Your task to perform on an android device: change your default location settings in chrome Image 0: 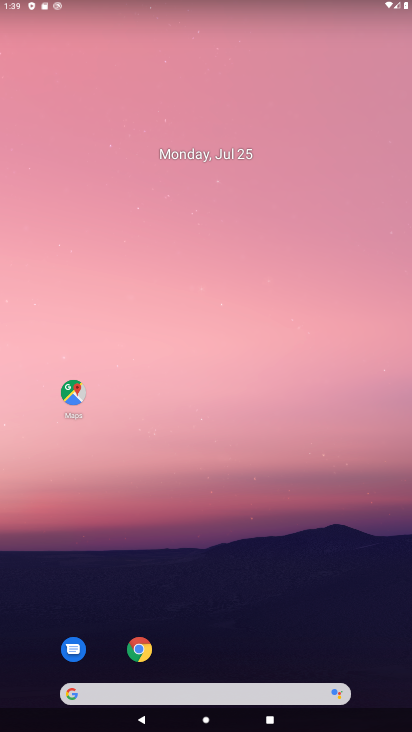
Step 0: click (146, 653)
Your task to perform on an android device: change your default location settings in chrome Image 1: 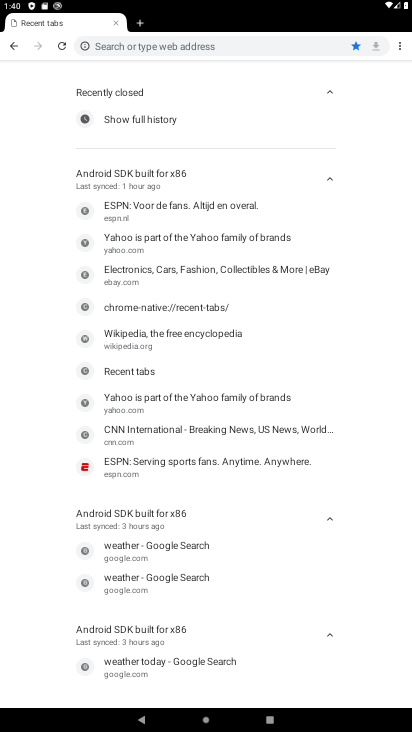
Step 1: click (400, 48)
Your task to perform on an android device: change your default location settings in chrome Image 2: 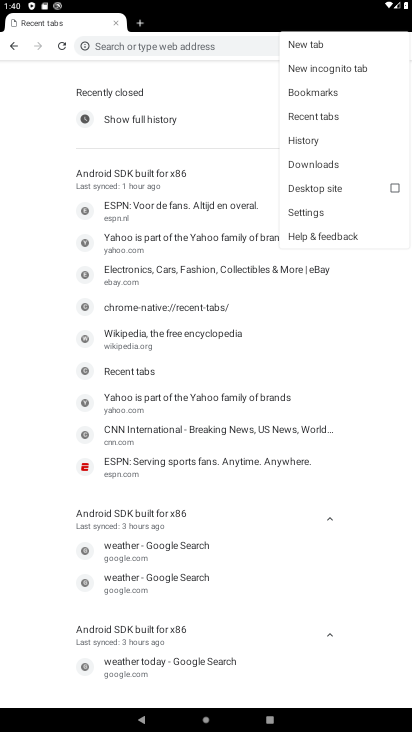
Step 2: click (330, 212)
Your task to perform on an android device: change your default location settings in chrome Image 3: 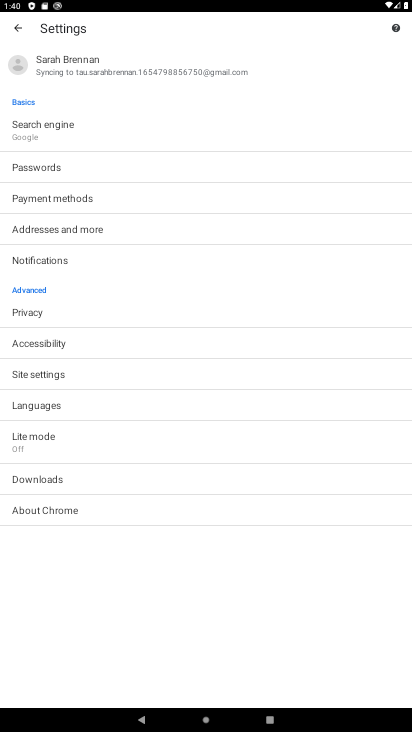
Step 3: click (115, 373)
Your task to perform on an android device: change your default location settings in chrome Image 4: 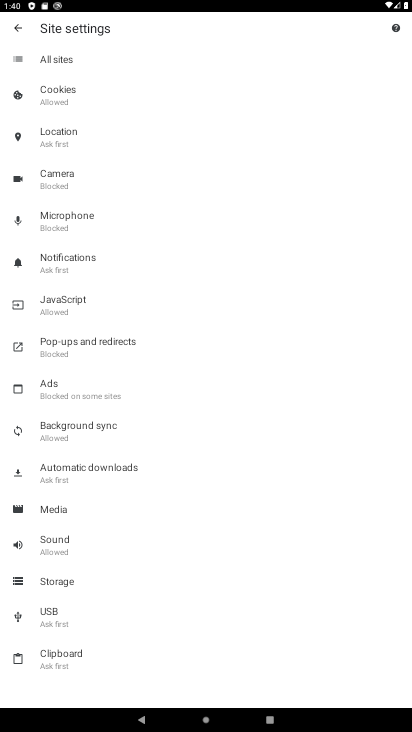
Step 4: click (72, 144)
Your task to perform on an android device: change your default location settings in chrome Image 5: 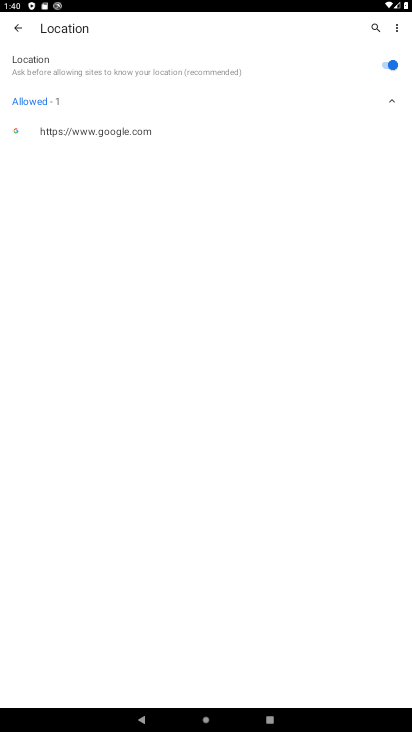
Step 5: click (388, 64)
Your task to perform on an android device: change your default location settings in chrome Image 6: 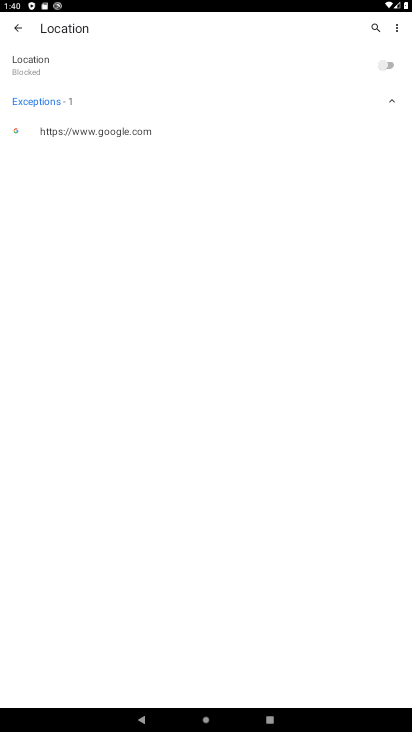
Step 6: task complete